Your task to perform on an android device: open app "WhatsApp Messenger" (install if not already installed) and go to login screen Image 0: 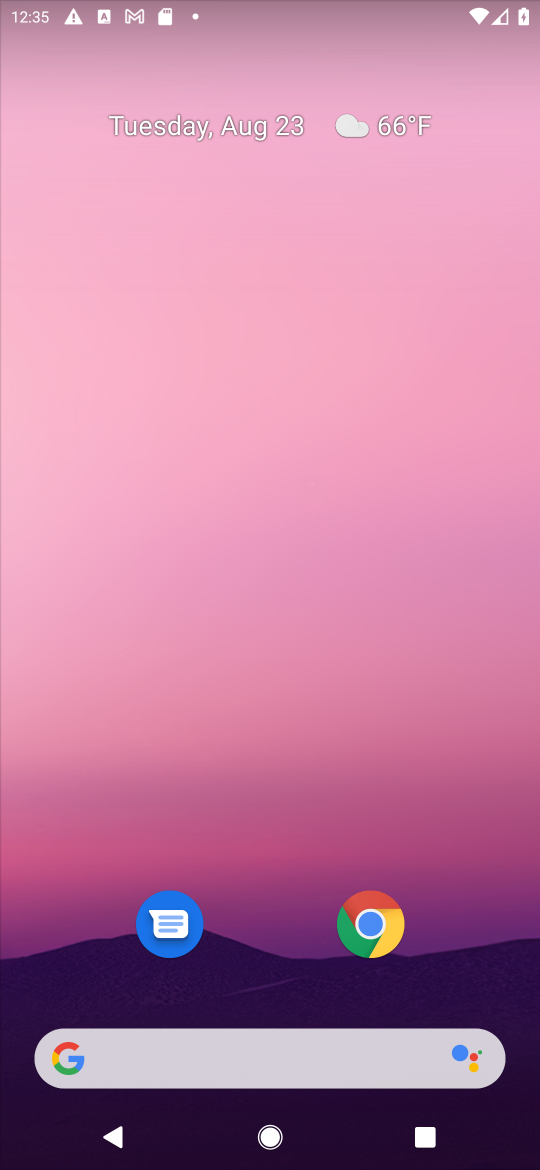
Step 0: press home button
Your task to perform on an android device: open app "WhatsApp Messenger" (install if not already installed) and go to login screen Image 1: 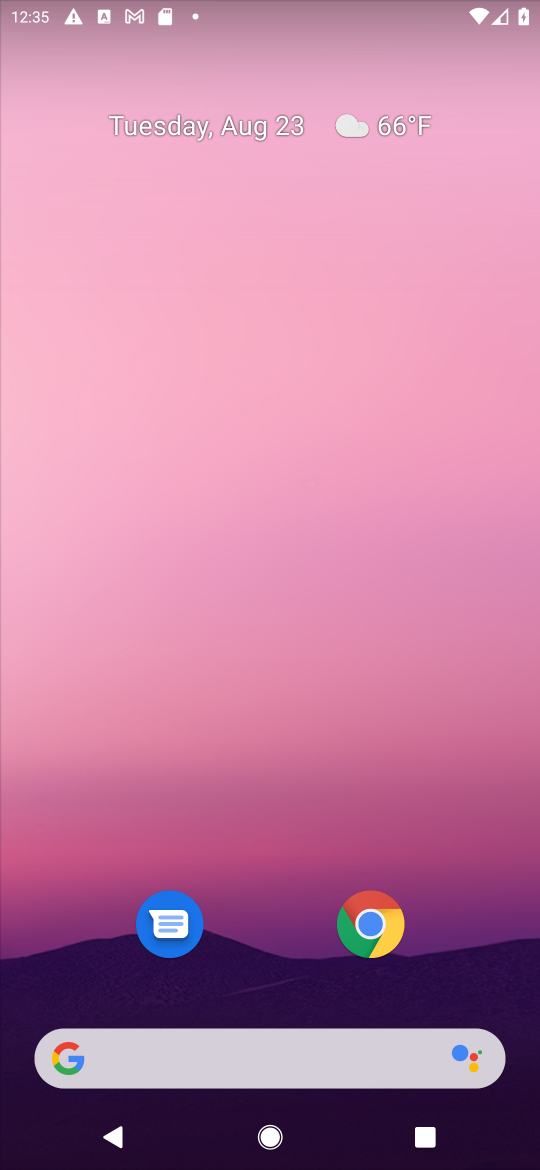
Step 1: drag from (469, 938) to (455, 109)
Your task to perform on an android device: open app "WhatsApp Messenger" (install if not already installed) and go to login screen Image 2: 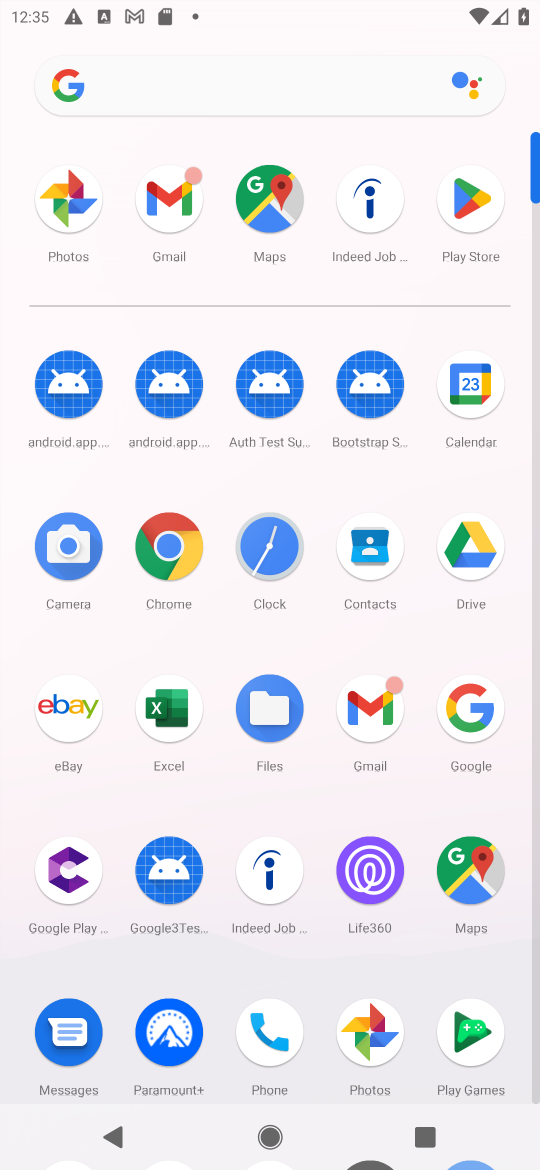
Step 2: click (475, 194)
Your task to perform on an android device: open app "WhatsApp Messenger" (install if not already installed) and go to login screen Image 3: 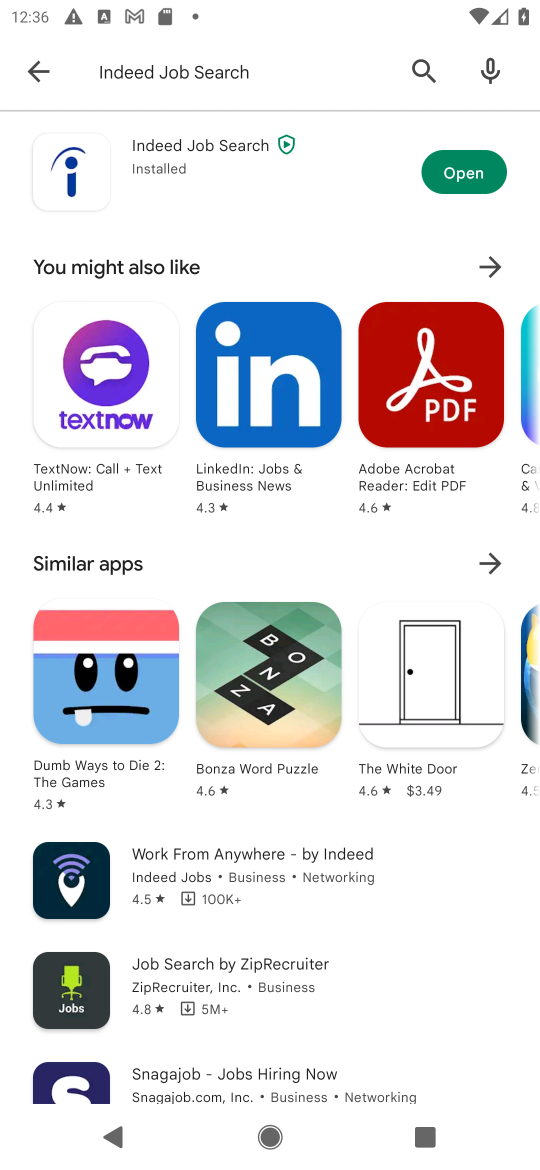
Step 3: press back button
Your task to perform on an android device: open app "WhatsApp Messenger" (install if not already installed) and go to login screen Image 4: 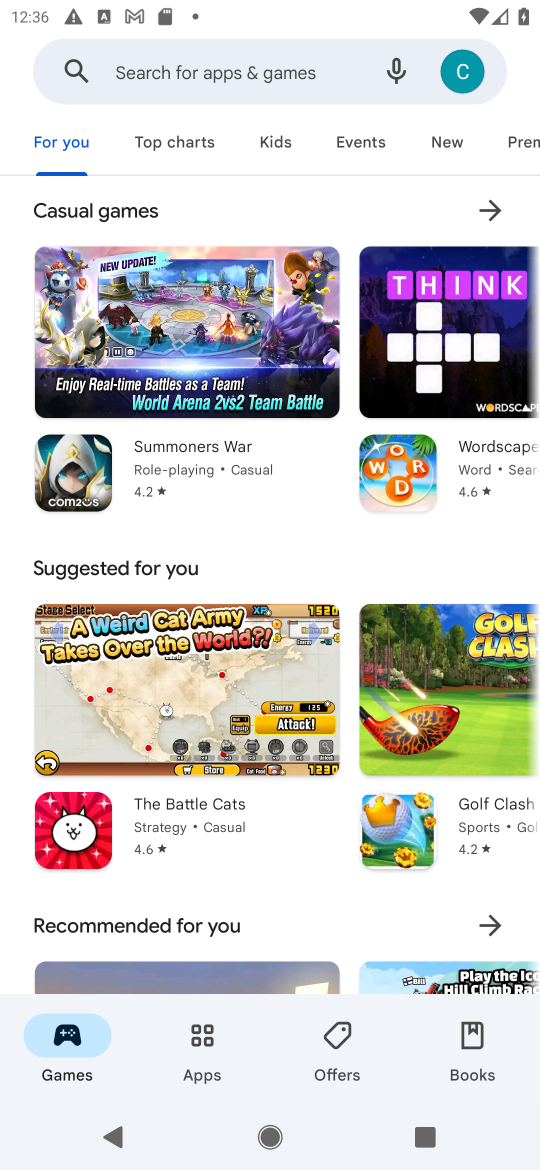
Step 4: click (205, 73)
Your task to perform on an android device: open app "WhatsApp Messenger" (install if not already installed) and go to login screen Image 5: 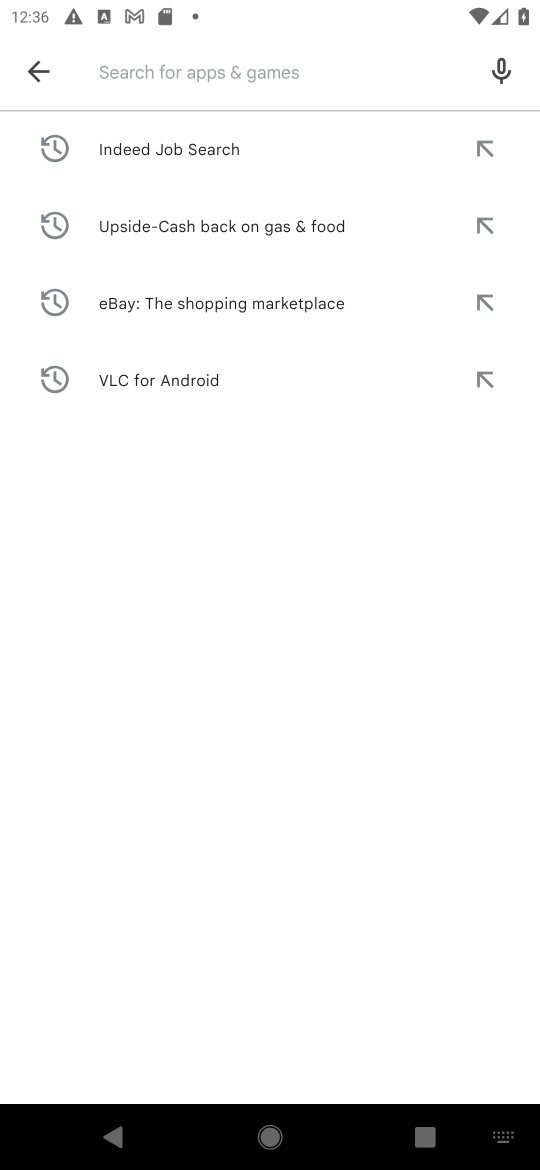
Step 5: type "WhatsApp Messenger"
Your task to perform on an android device: open app "WhatsApp Messenger" (install if not already installed) and go to login screen Image 6: 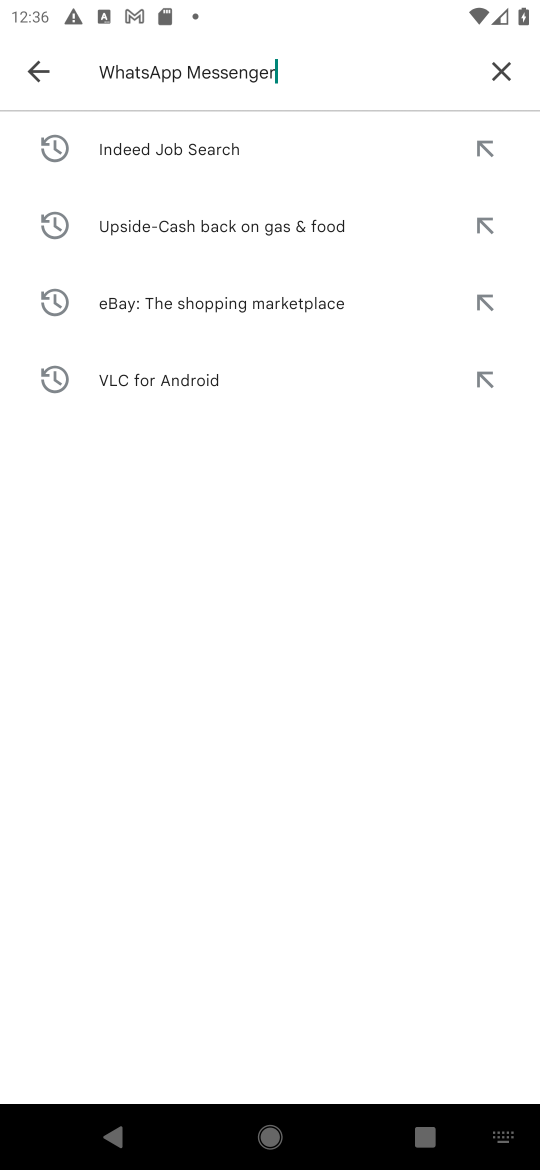
Step 6: press enter
Your task to perform on an android device: open app "WhatsApp Messenger" (install if not already installed) and go to login screen Image 7: 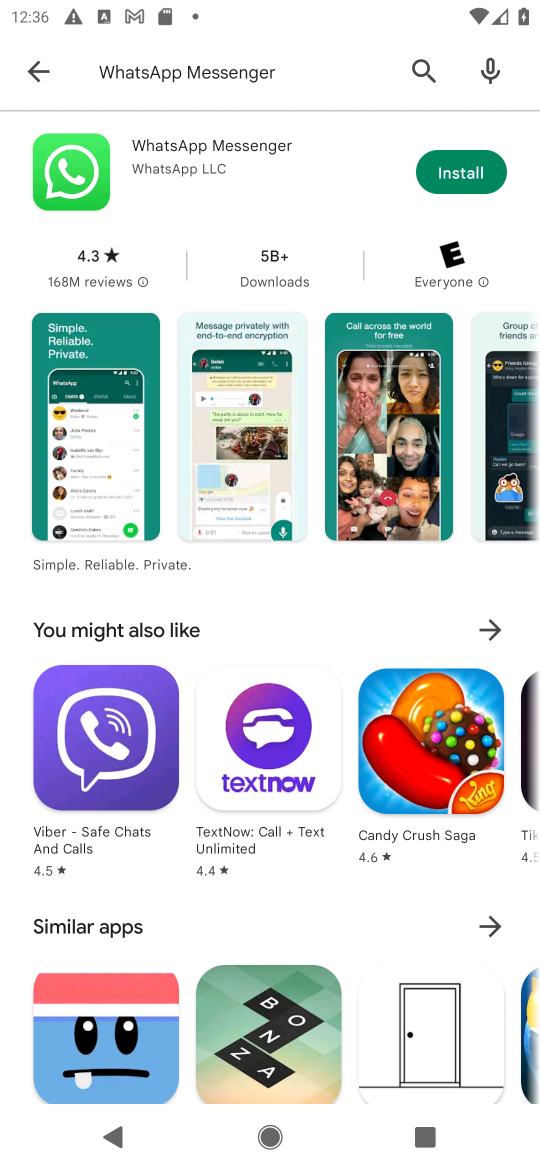
Step 7: click (453, 171)
Your task to perform on an android device: open app "WhatsApp Messenger" (install if not already installed) and go to login screen Image 8: 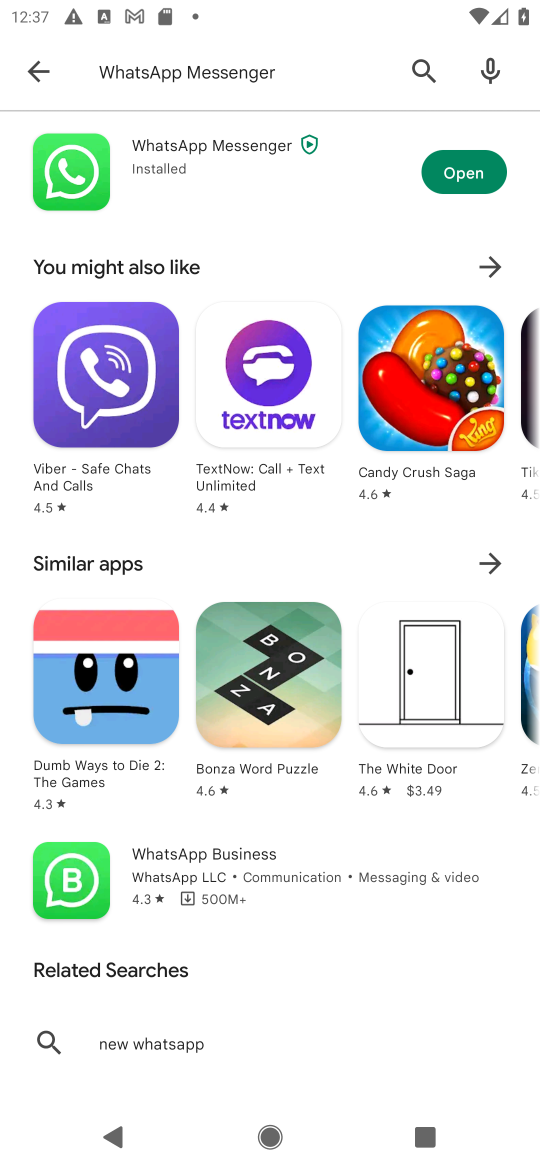
Step 8: click (469, 176)
Your task to perform on an android device: open app "WhatsApp Messenger" (install if not already installed) and go to login screen Image 9: 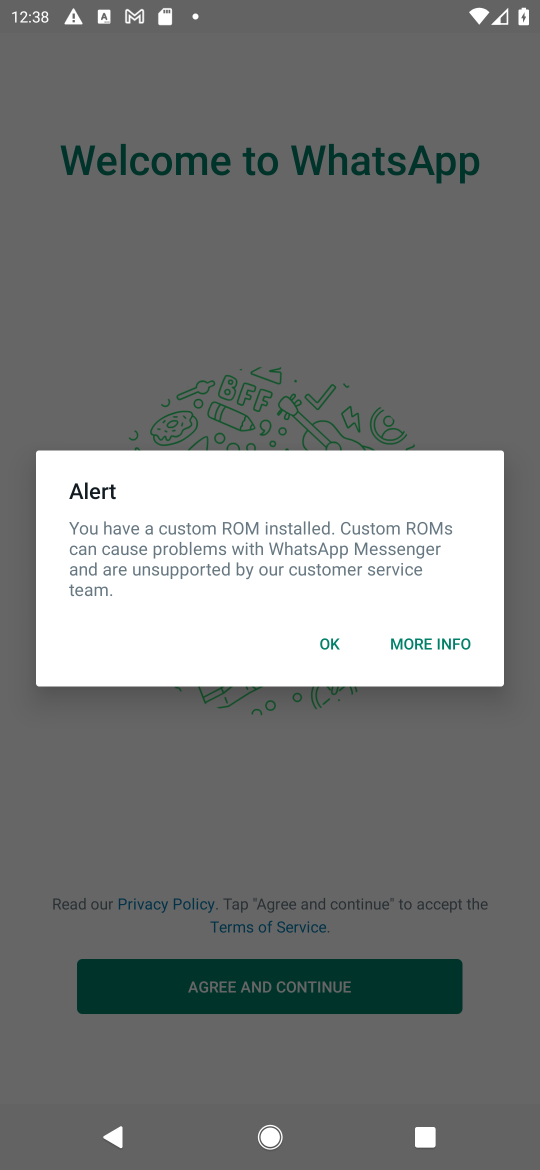
Step 9: click (337, 647)
Your task to perform on an android device: open app "WhatsApp Messenger" (install if not already installed) and go to login screen Image 10: 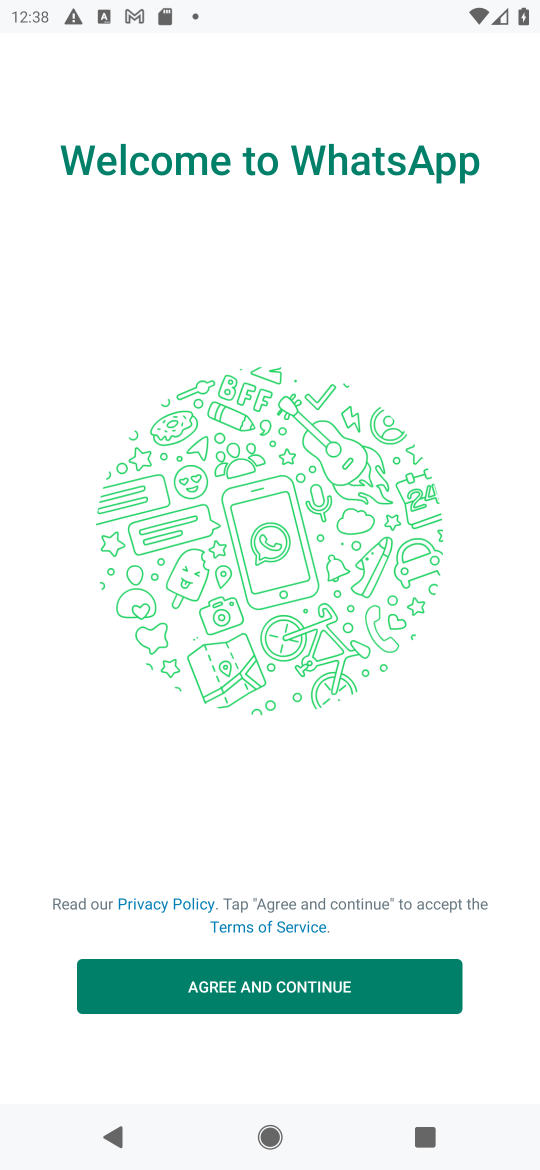
Step 10: task complete